Your task to perform on an android device: all mails in gmail Image 0: 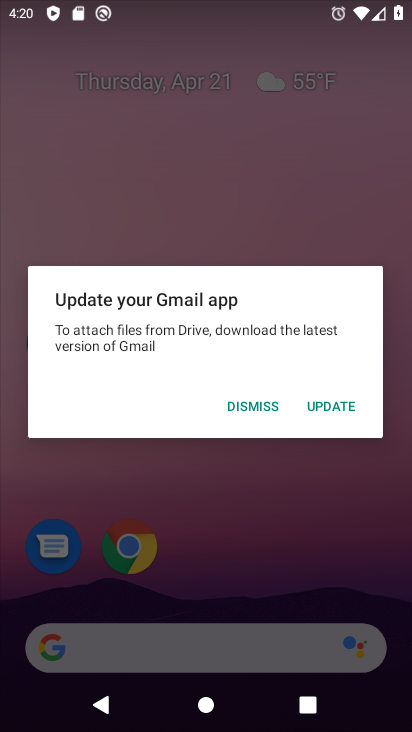
Step 0: press home button
Your task to perform on an android device: all mails in gmail Image 1: 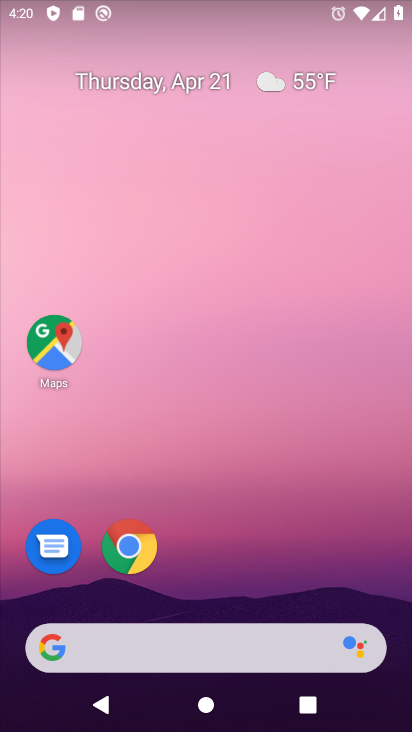
Step 1: drag from (326, 577) to (302, 115)
Your task to perform on an android device: all mails in gmail Image 2: 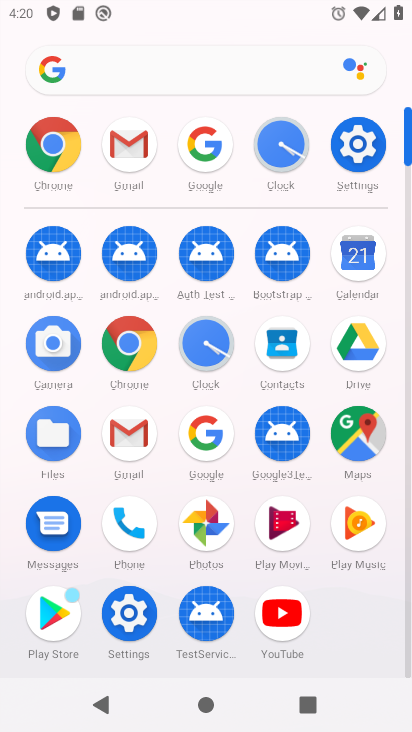
Step 2: click (130, 434)
Your task to perform on an android device: all mails in gmail Image 3: 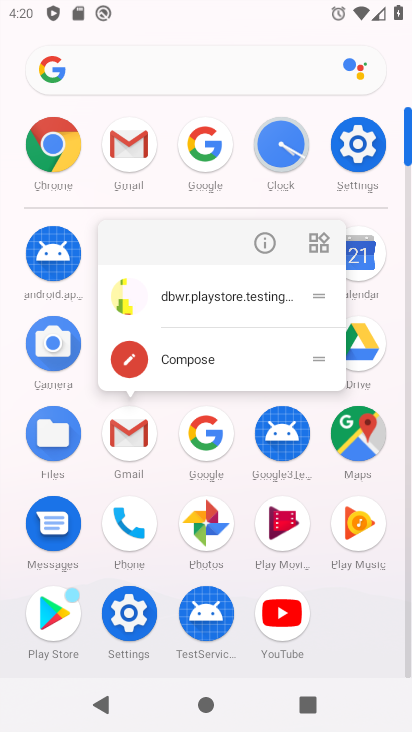
Step 3: click (130, 433)
Your task to perform on an android device: all mails in gmail Image 4: 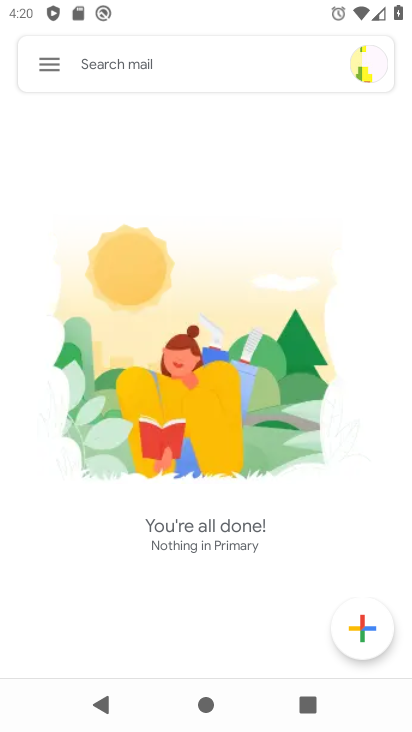
Step 4: click (47, 61)
Your task to perform on an android device: all mails in gmail Image 5: 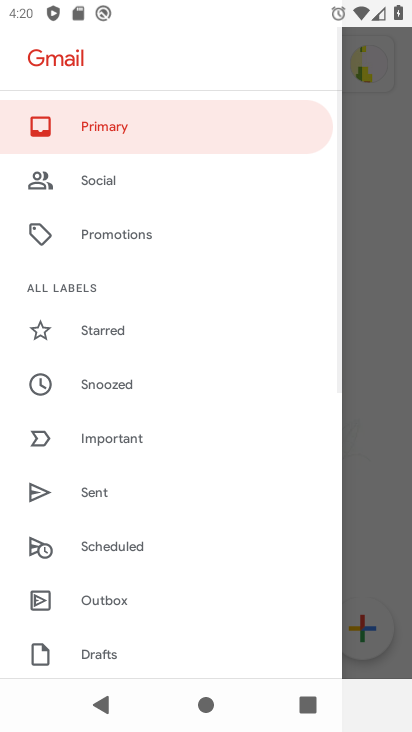
Step 5: drag from (145, 582) to (185, 278)
Your task to perform on an android device: all mails in gmail Image 6: 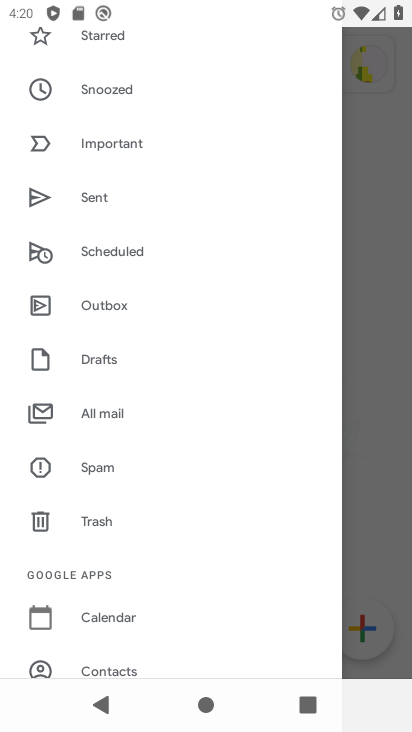
Step 6: click (110, 408)
Your task to perform on an android device: all mails in gmail Image 7: 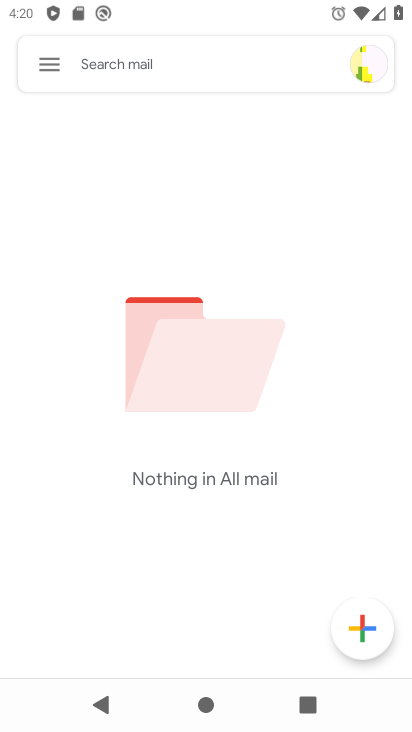
Step 7: task complete